Your task to perform on an android device: Open Chrome and go to settings Image 0: 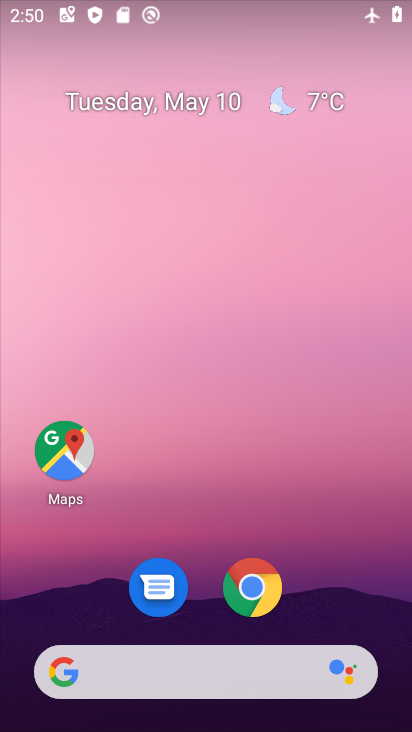
Step 0: click (270, 590)
Your task to perform on an android device: Open Chrome and go to settings Image 1: 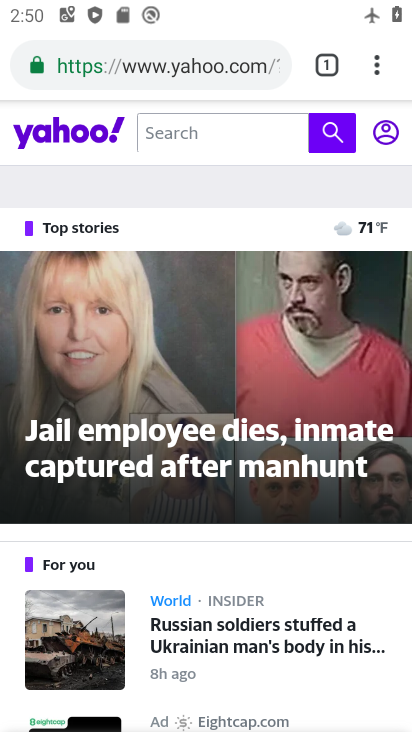
Step 1: click (371, 54)
Your task to perform on an android device: Open Chrome and go to settings Image 2: 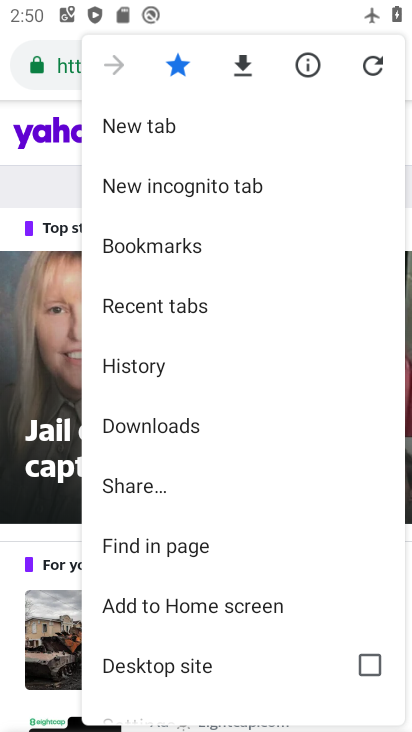
Step 2: drag from (173, 594) to (167, 299)
Your task to perform on an android device: Open Chrome and go to settings Image 3: 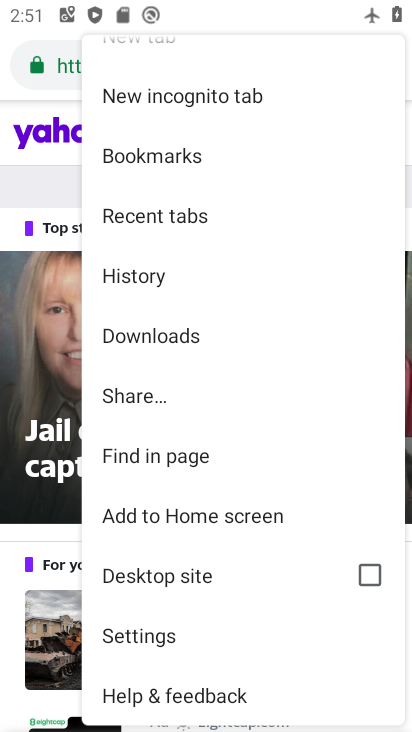
Step 3: click (163, 634)
Your task to perform on an android device: Open Chrome and go to settings Image 4: 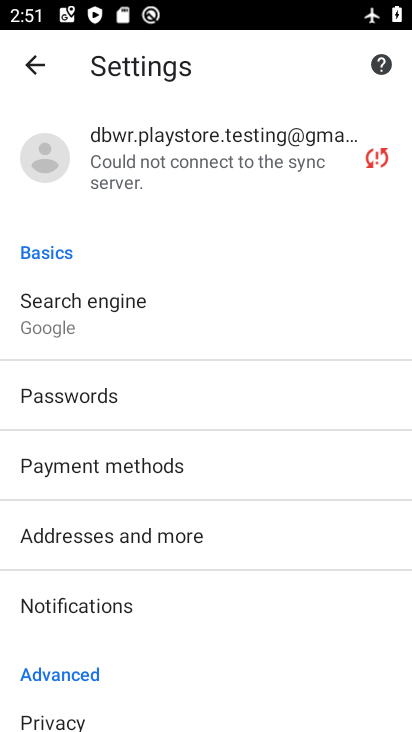
Step 4: task complete